Your task to perform on an android device: Search for vegetarian restaurants on Maps Image 0: 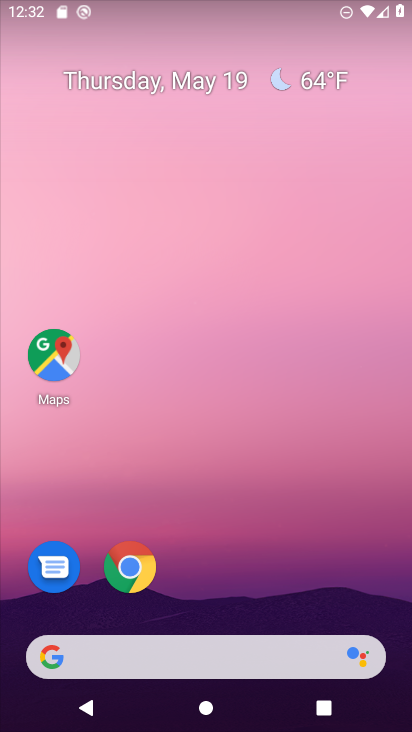
Step 0: click (50, 374)
Your task to perform on an android device: Search for vegetarian restaurants on Maps Image 1: 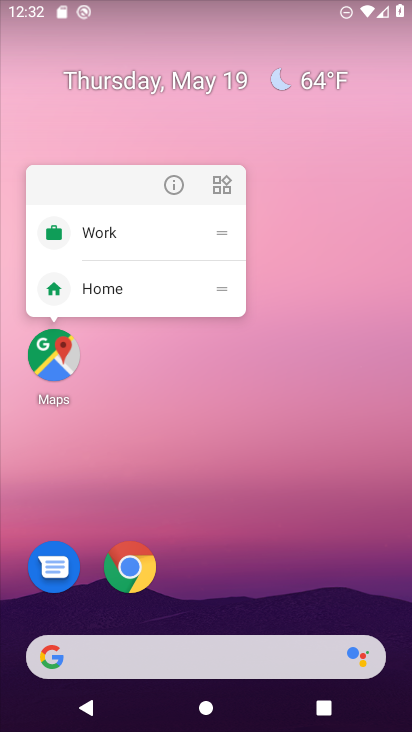
Step 1: click (55, 374)
Your task to perform on an android device: Search for vegetarian restaurants on Maps Image 2: 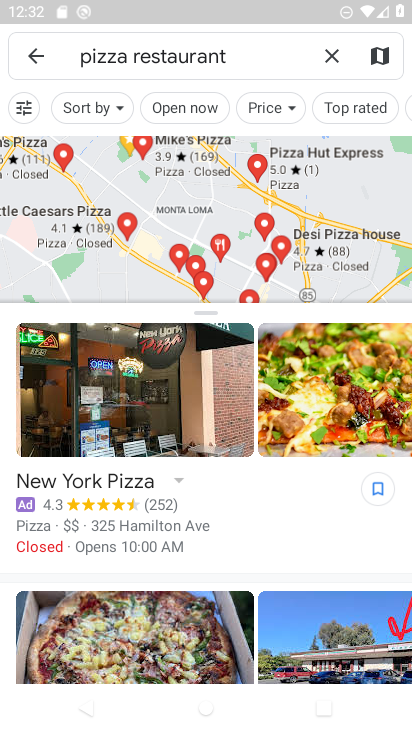
Step 2: click (323, 66)
Your task to perform on an android device: Search for vegetarian restaurants on Maps Image 3: 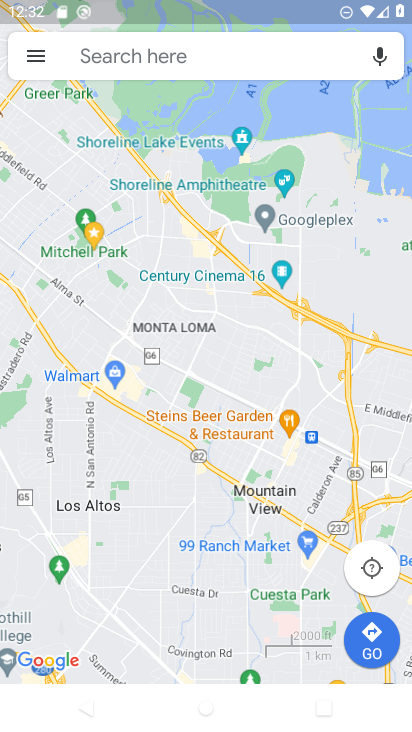
Step 3: click (174, 71)
Your task to perform on an android device: Search for vegetarian restaurants on Maps Image 4: 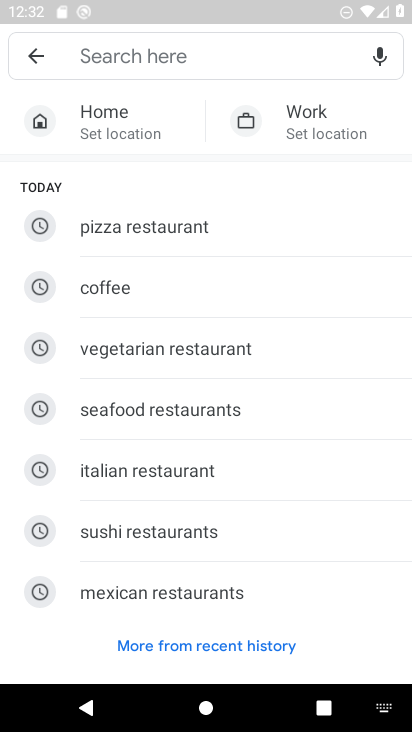
Step 4: click (231, 346)
Your task to perform on an android device: Search for vegetarian restaurants on Maps Image 5: 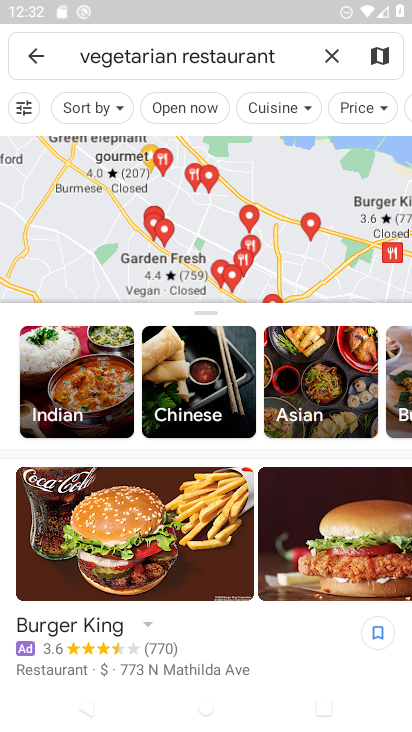
Step 5: task complete